Your task to perform on an android device: delete browsing data in the chrome app Image 0: 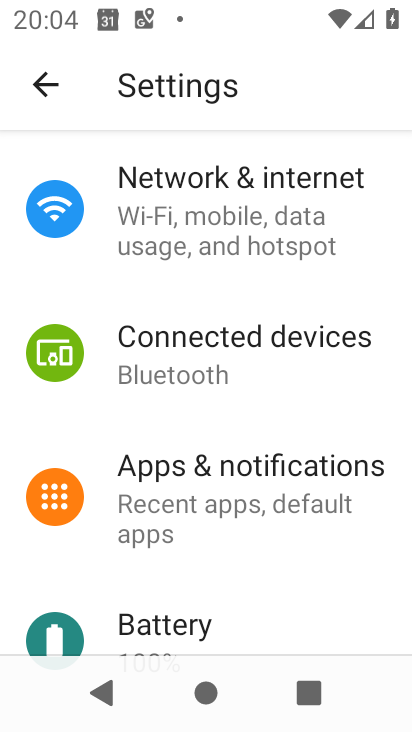
Step 0: press home button
Your task to perform on an android device: delete browsing data in the chrome app Image 1: 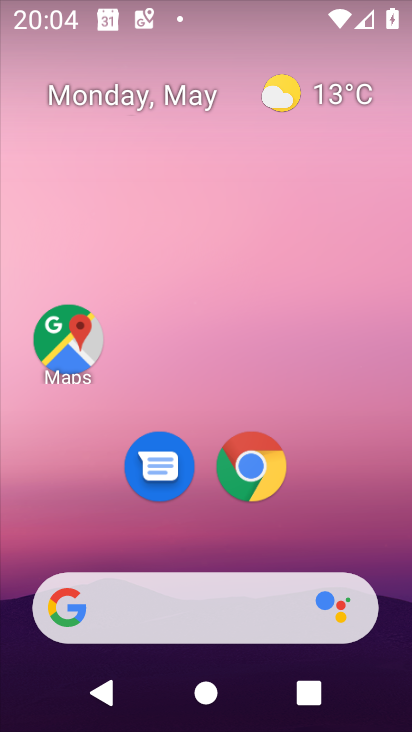
Step 1: drag from (306, 522) to (312, 258)
Your task to perform on an android device: delete browsing data in the chrome app Image 2: 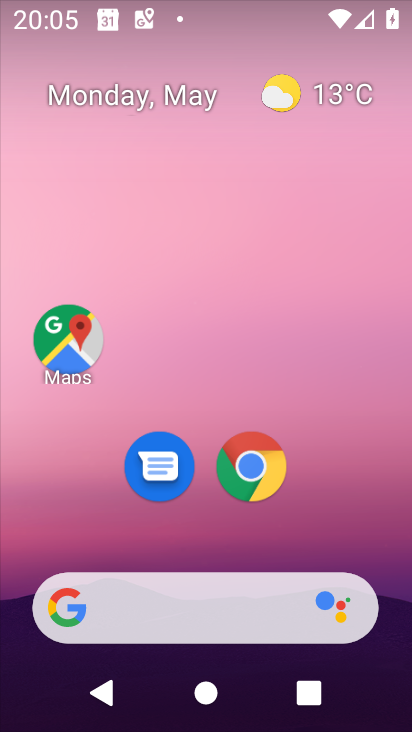
Step 2: drag from (285, 450) to (283, 85)
Your task to perform on an android device: delete browsing data in the chrome app Image 3: 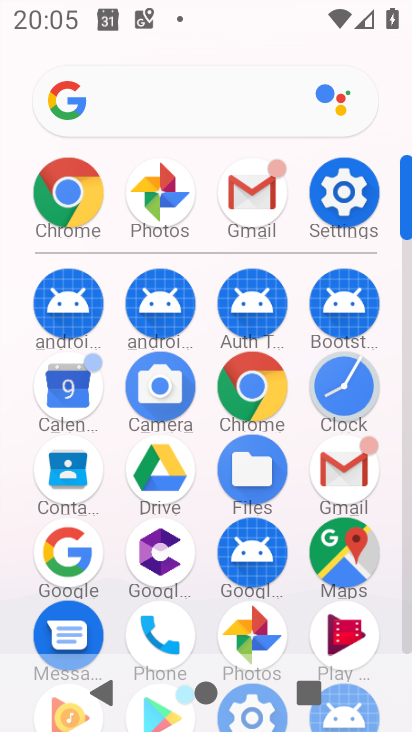
Step 3: click (246, 385)
Your task to perform on an android device: delete browsing data in the chrome app Image 4: 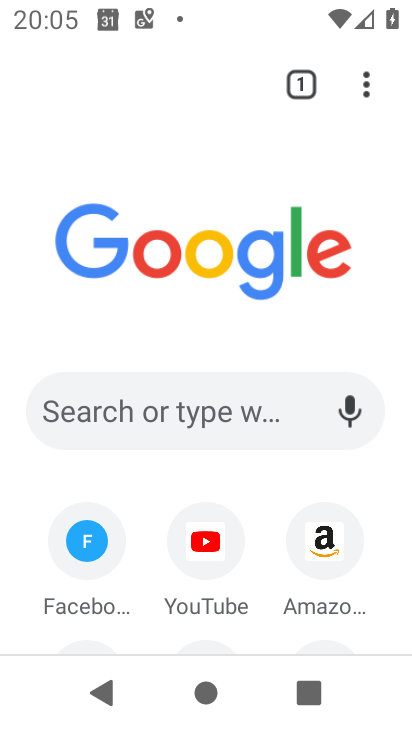
Step 4: click (357, 82)
Your task to perform on an android device: delete browsing data in the chrome app Image 5: 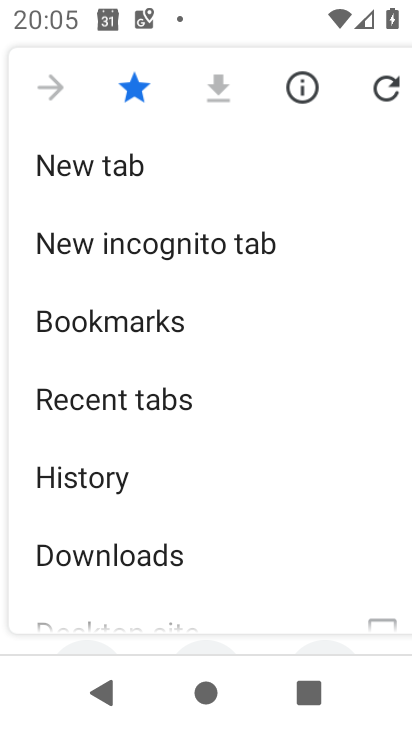
Step 5: drag from (211, 517) to (246, 141)
Your task to perform on an android device: delete browsing data in the chrome app Image 6: 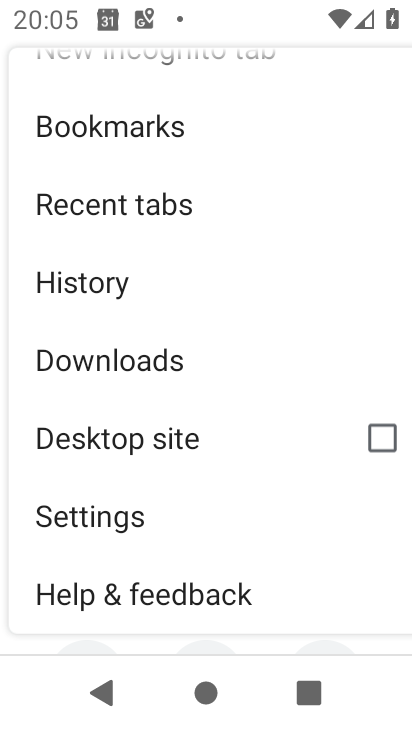
Step 6: click (139, 283)
Your task to perform on an android device: delete browsing data in the chrome app Image 7: 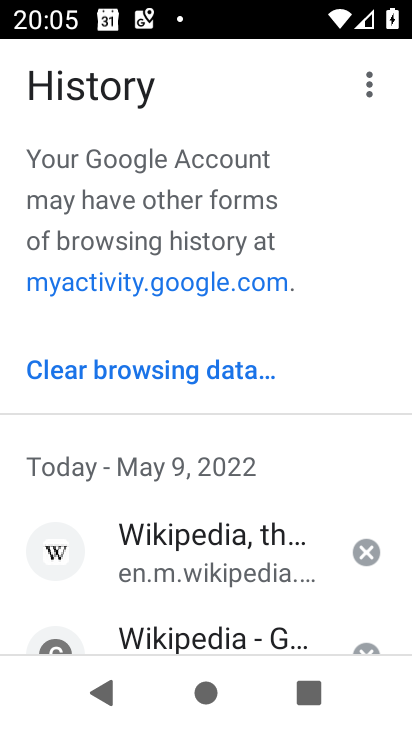
Step 7: click (126, 360)
Your task to perform on an android device: delete browsing data in the chrome app Image 8: 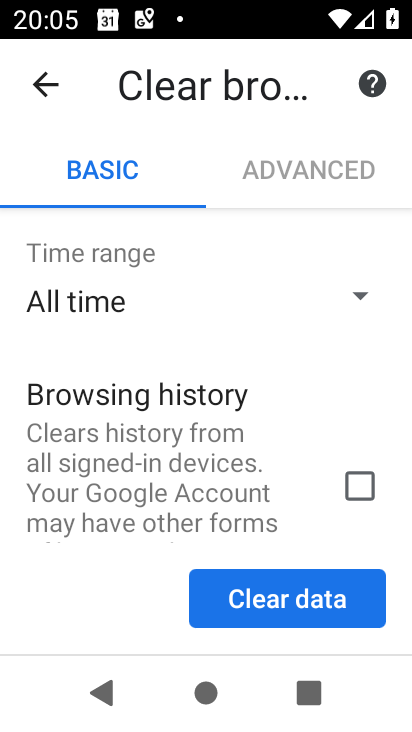
Step 8: click (297, 576)
Your task to perform on an android device: delete browsing data in the chrome app Image 9: 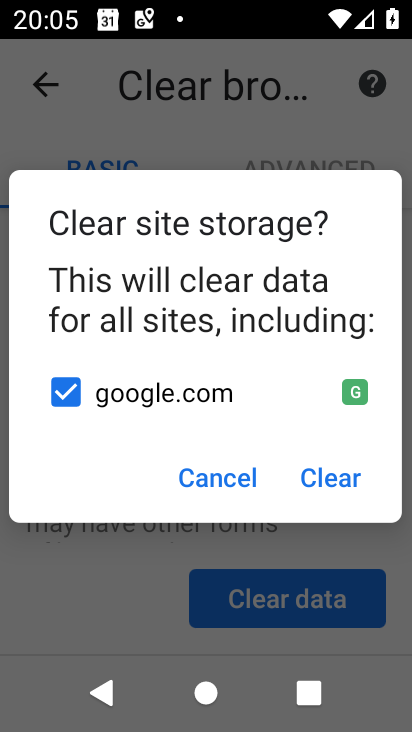
Step 9: click (310, 466)
Your task to perform on an android device: delete browsing data in the chrome app Image 10: 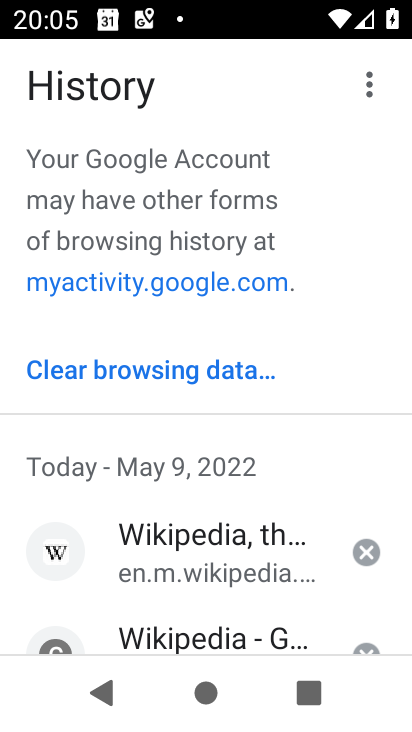
Step 10: click (239, 370)
Your task to perform on an android device: delete browsing data in the chrome app Image 11: 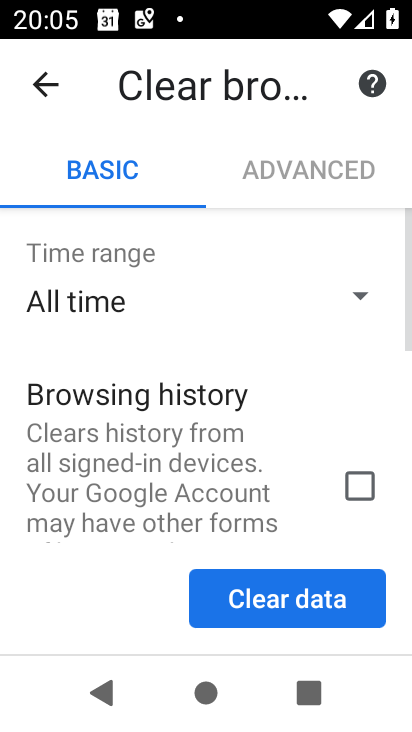
Step 11: click (347, 493)
Your task to perform on an android device: delete browsing data in the chrome app Image 12: 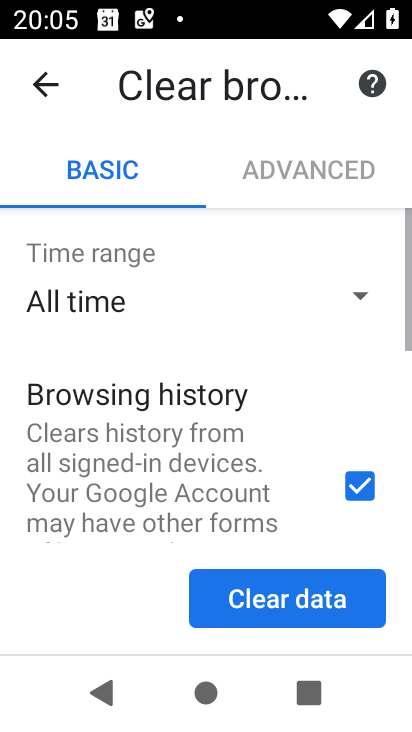
Step 12: click (281, 602)
Your task to perform on an android device: delete browsing data in the chrome app Image 13: 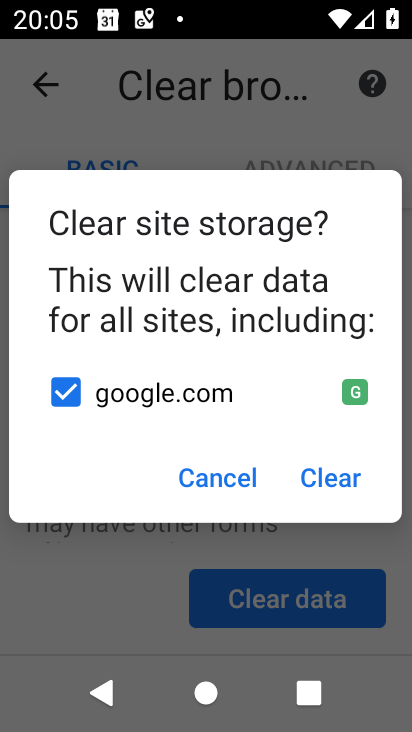
Step 13: click (342, 475)
Your task to perform on an android device: delete browsing data in the chrome app Image 14: 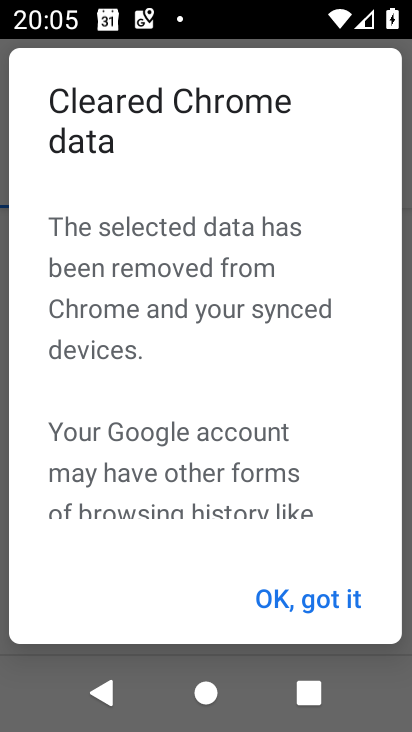
Step 14: click (313, 601)
Your task to perform on an android device: delete browsing data in the chrome app Image 15: 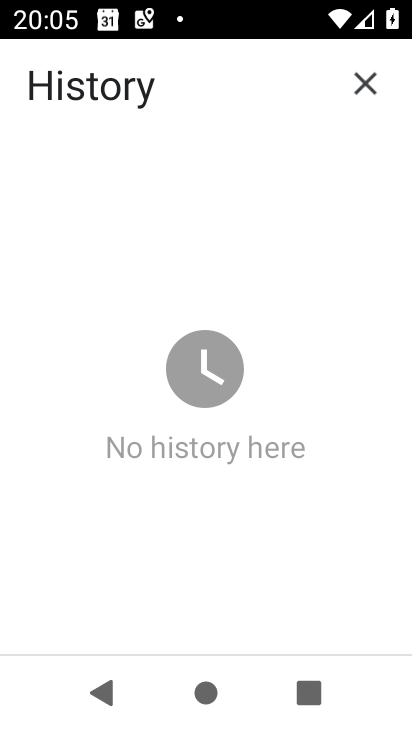
Step 15: task complete